Your task to perform on an android device: turn off translation in the chrome app Image 0: 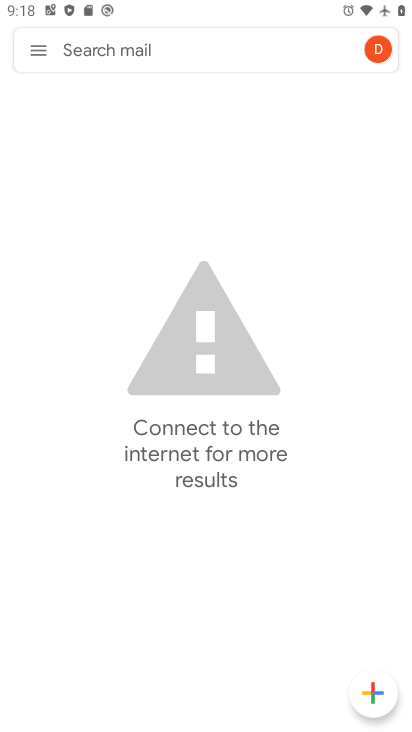
Step 0: press home button
Your task to perform on an android device: turn off translation in the chrome app Image 1: 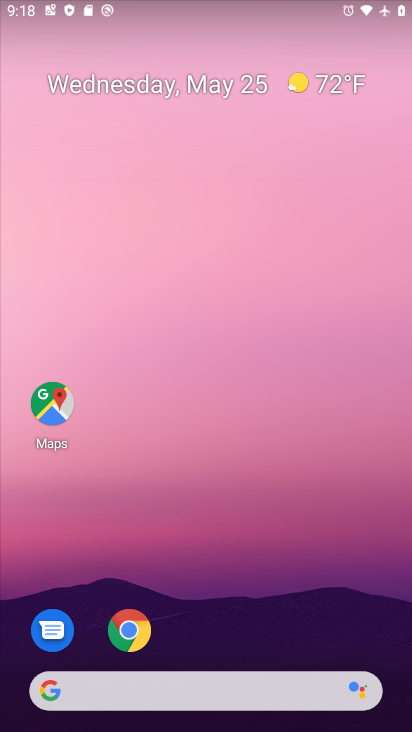
Step 1: click (145, 624)
Your task to perform on an android device: turn off translation in the chrome app Image 2: 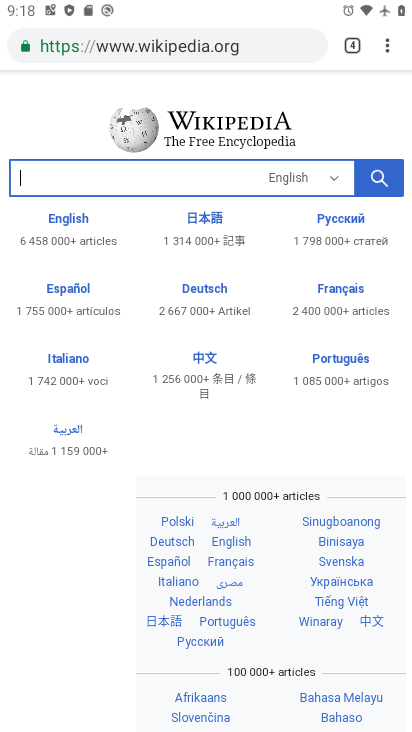
Step 2: click (377, 68)
Your task to perform on an android device: turn off translation in the chrome app Image 3: 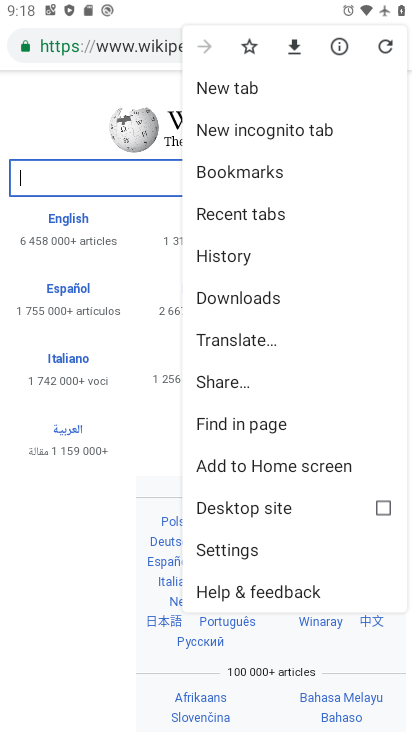
Step 3: drag from (270, 530) to (296, 398)
Your task to perform on an android device: turn off translation in the chrome app Image 4: 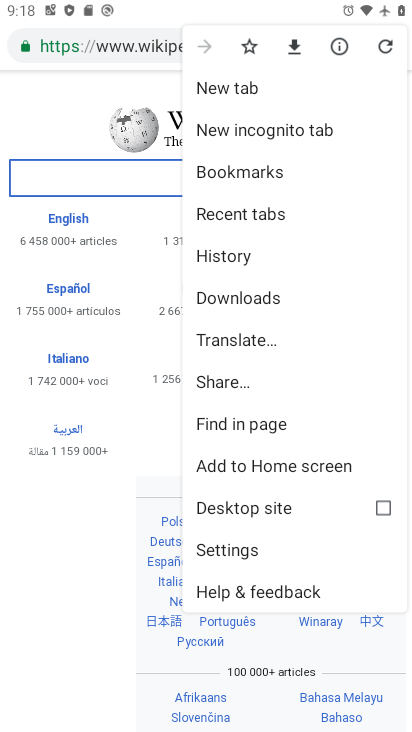
Step 4: click (265, 537)
Your task to perform on an android device: turn off translation in the chrome app Image 5: 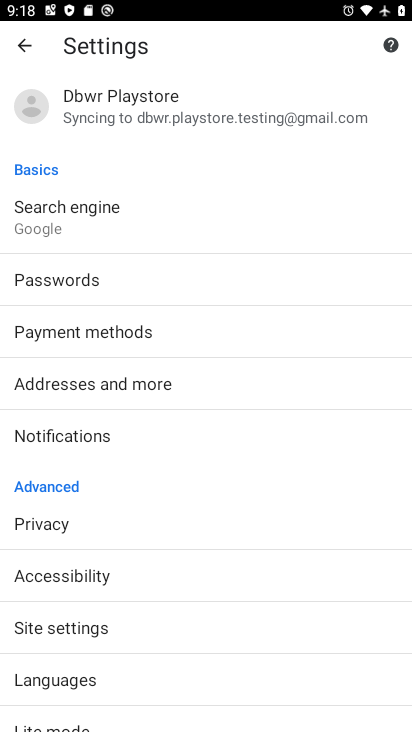
Step 5: click (130, 674)
Your task to perform on an android device: turn off translation in the chrome app Image 6: 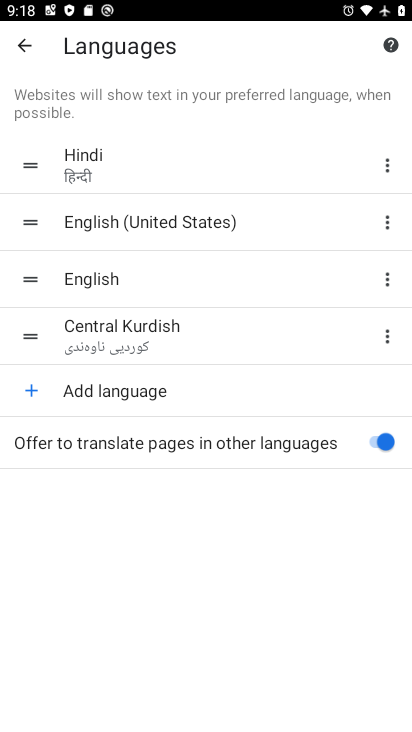
Step 6: click (373, 438)
Your task to perform on an android device: turn off translation in the chrome app Image 7: 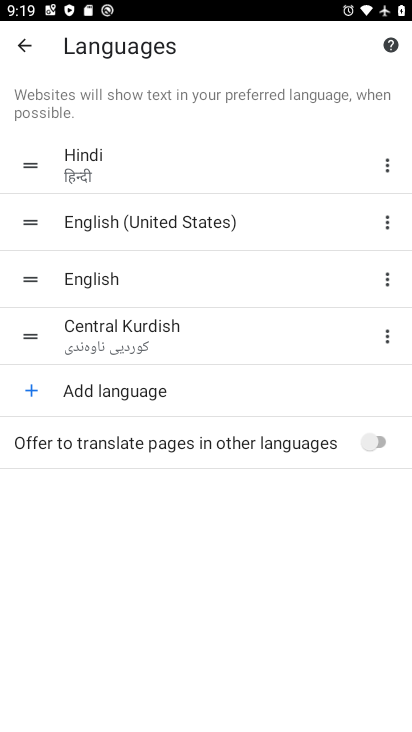
Step 7: task complete